Your task to perform on an android device: choose inbox layout in the gmail app Image 0: 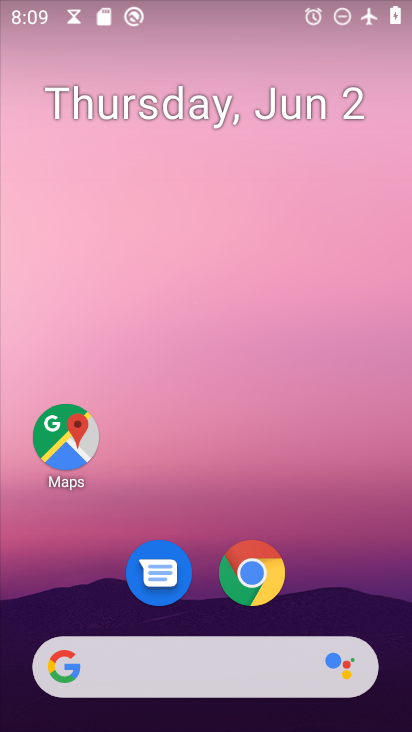
Step 0: press home button
Your task to perform on an android device: choose inbox layout in the gmail app Image 1: 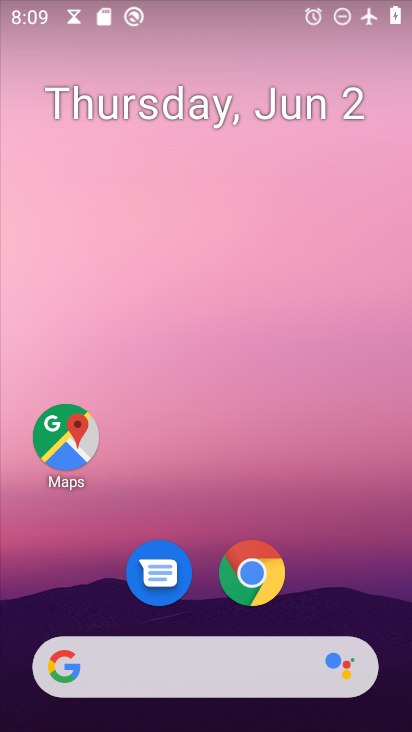
Step 1: drag from (191, 670) to (327, 181)
Your task to perform on an android device: choose inbox layout in the gmail app Image 2: 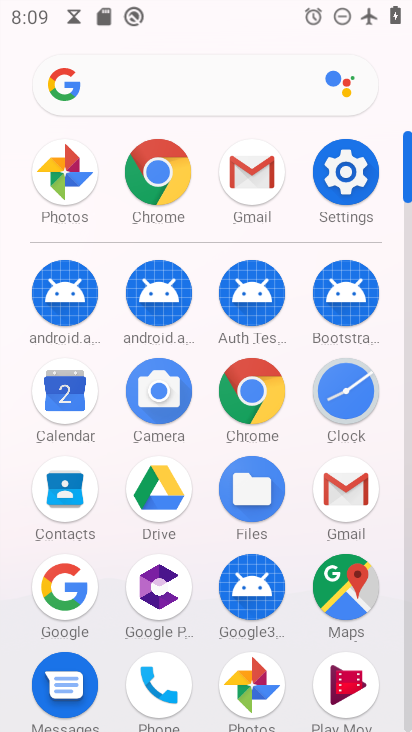
Step 2: click (250, 172)
Your task to perform on an android device: choose inbox layout in the gmail app Image 3: 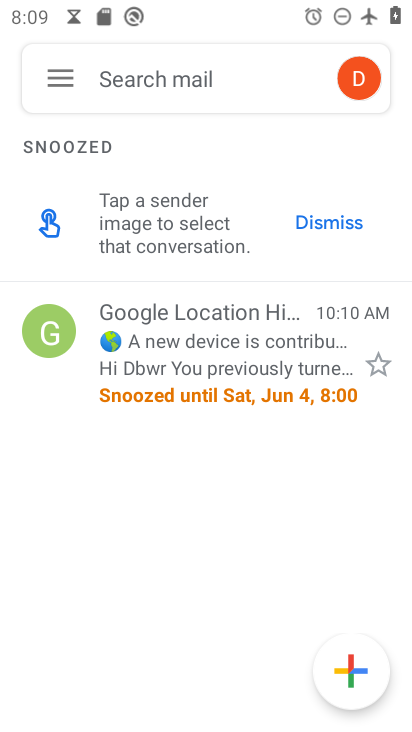
Step 3: click (52, 83)
Your task to perform on an android device: choose inbox layout in the gmail app Image 4: 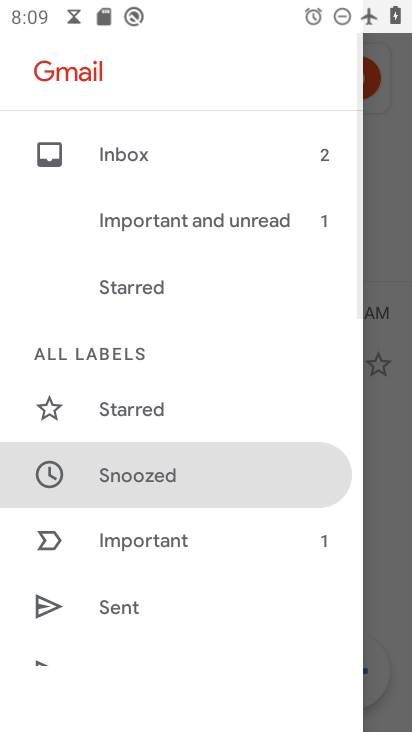
Step 4: drag from (198, 665) to (271, 37)
Your task to perform on an android device: choose inbox layout in the gmail app Image 5: 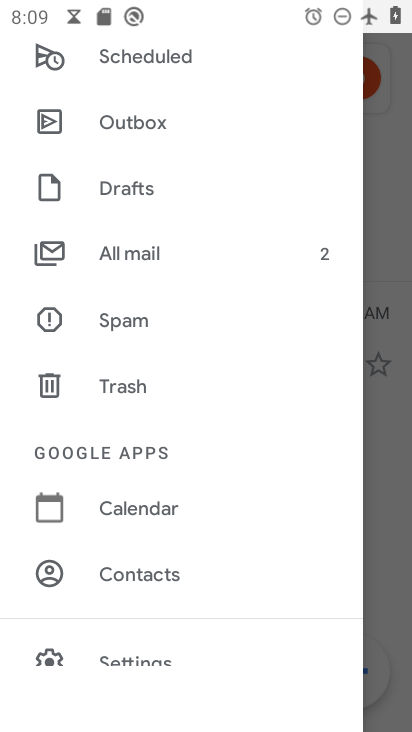
Step 5: drag from (190, 606) to (263, 118)
Your task to perform on an android device: choose inbox layout in the gmail app Image 6: 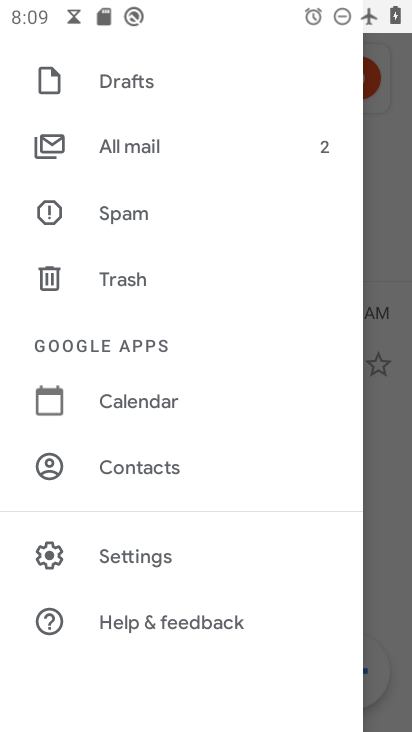
Step 6: click (142, 564)
Your task to perform on an android device: choose inbox layout in the gmail app Image 7: 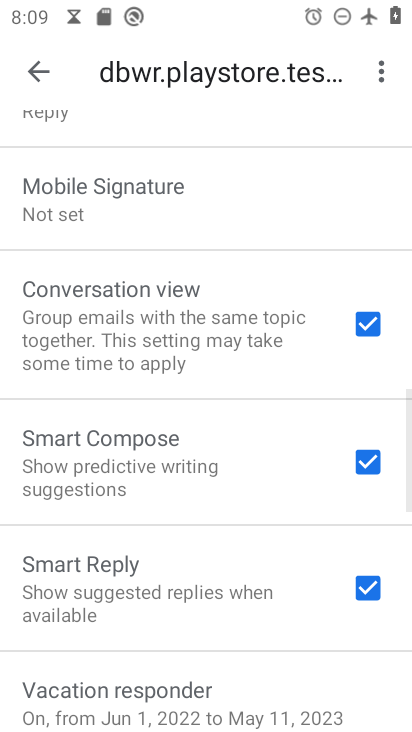
Step 7: drag from (281, 181) to (217, 668)
Your task to perform on an android device: choose inbox layout in the gmail app Image 8: 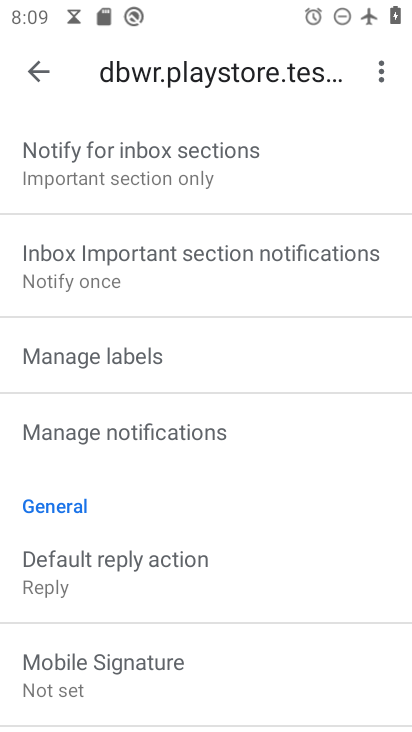
Step 8: drag from (298, 167) to (256, 636)
Your task to perform on an android device: choose inbox layout in the gmail app Image 9: 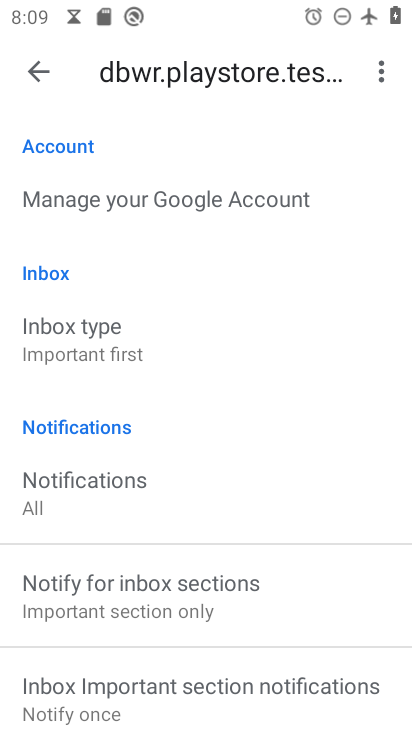
Step 9: click (89, 337)
Your task to perform on an android device: choose inbox layout in the gmail app Image 10: 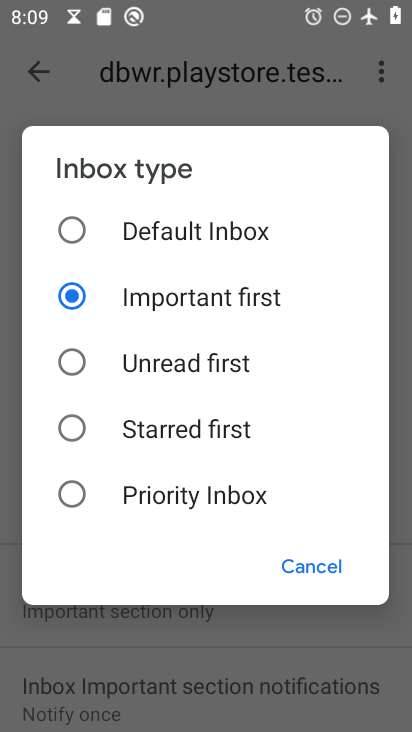
Step 10: click (68, 488)
Your task to perform on an android device: choose inbox layout in the gmail app Image 11: 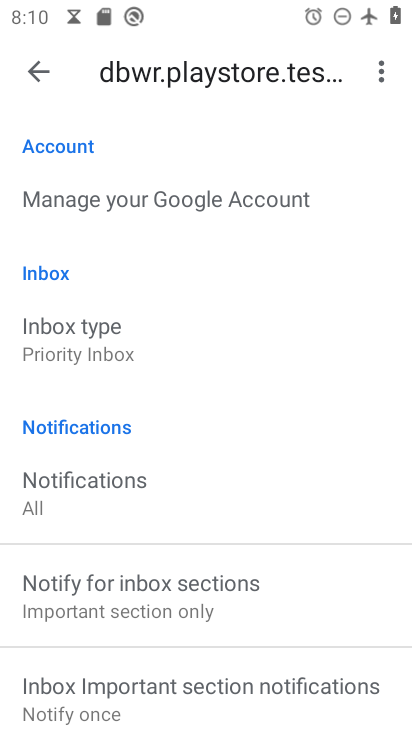
Step 11: task complete